Your task to perform on an android device: Go to Reddit.com Image 0: 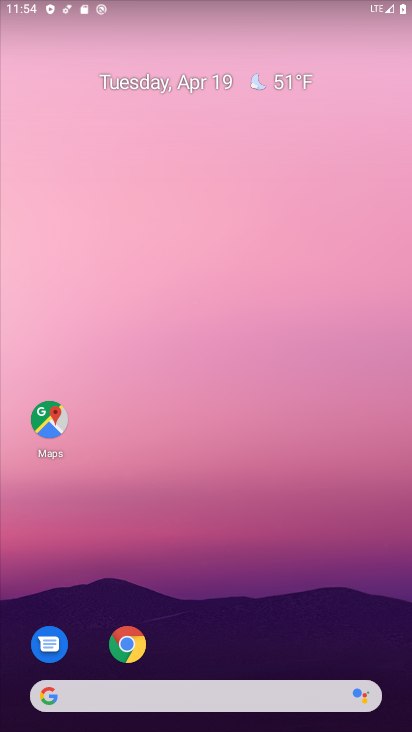
Step 0: click (128, 643)
Your task to perform on an android device: Go to Reddit.com Image 1: 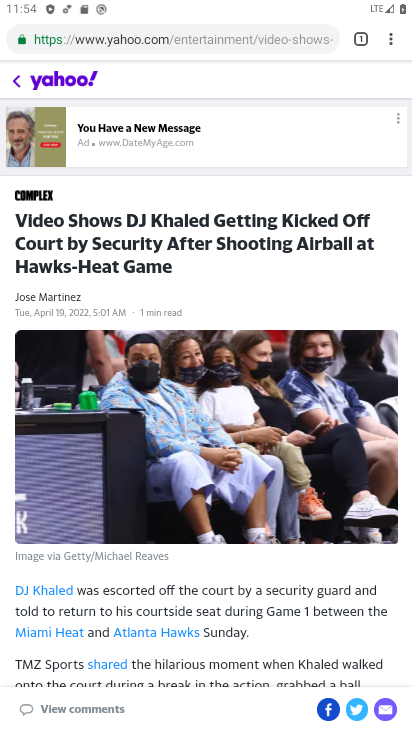
Step 1: click (297, 33)
Your task to perform on an android device: Go to Reddit.com Image 2: 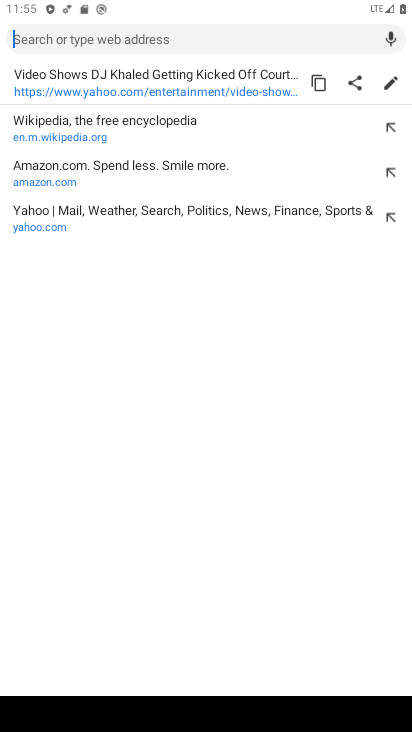
Step 2: type "Reddit.com"
Your task to perform on an android device: Go to Reddit.com Image 3: 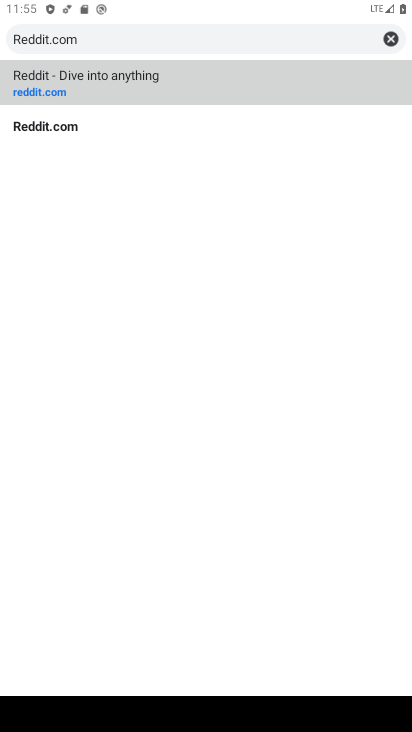
Step 3: click (102, 83)
Your task to perform on an android device: Go to Reddit.com Image 4: 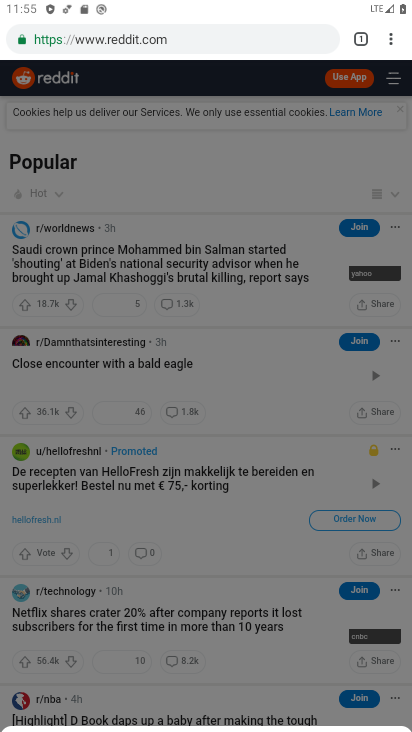
Step 4: task complete